Your task to perform on an android device: Open Wikipedia Image 0: 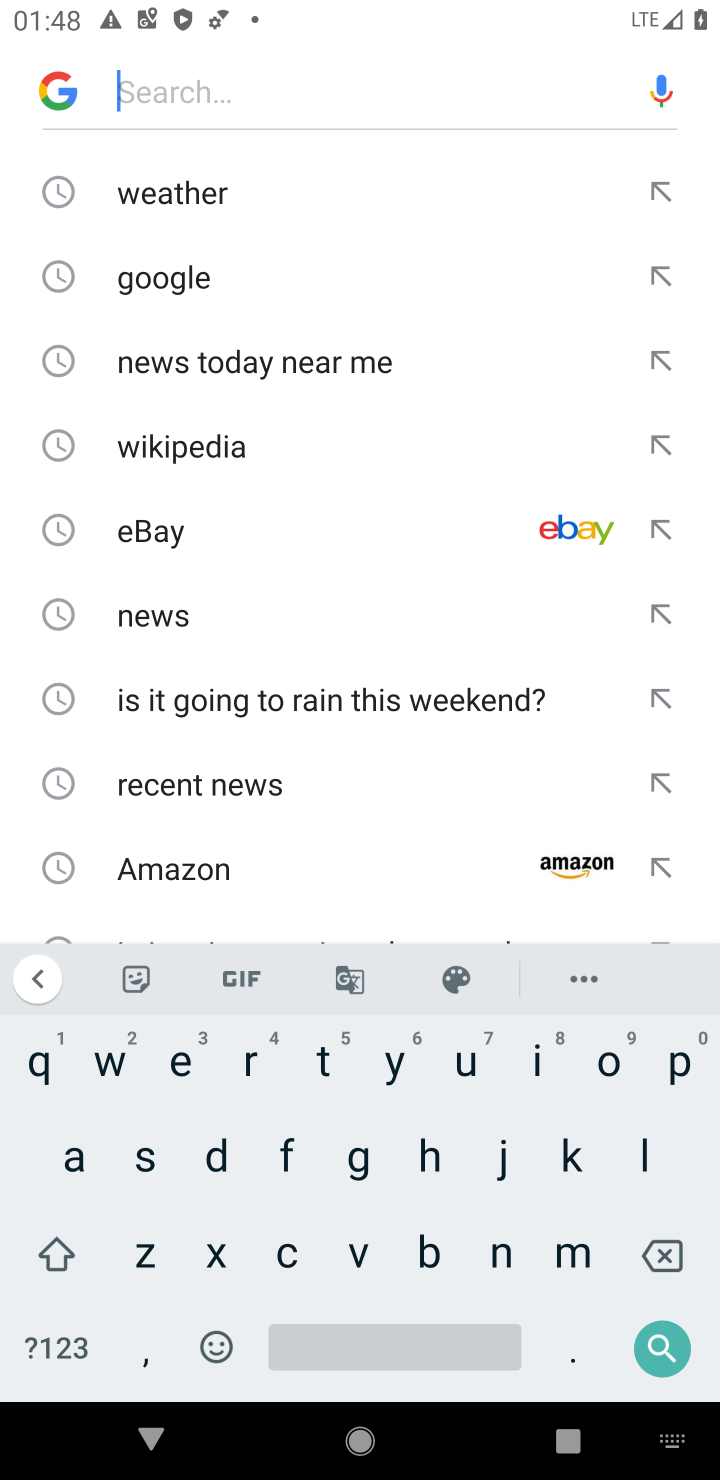
Step 0: click (116, 1054)
Your task to perform on an android device: Open Wikipedia Image 1: 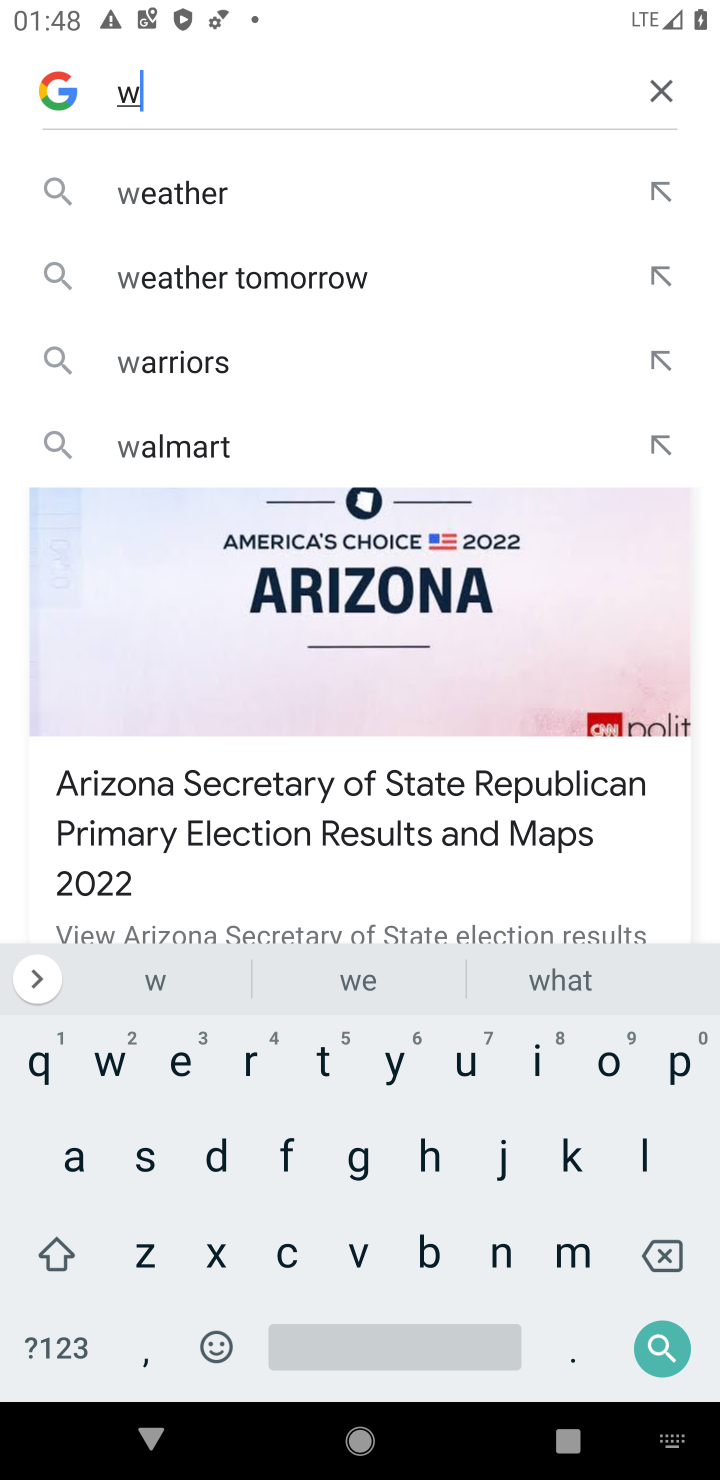
Step 1: click (546, 1079)
Your task to perform on an android device: Open Wikipedia Image 2: 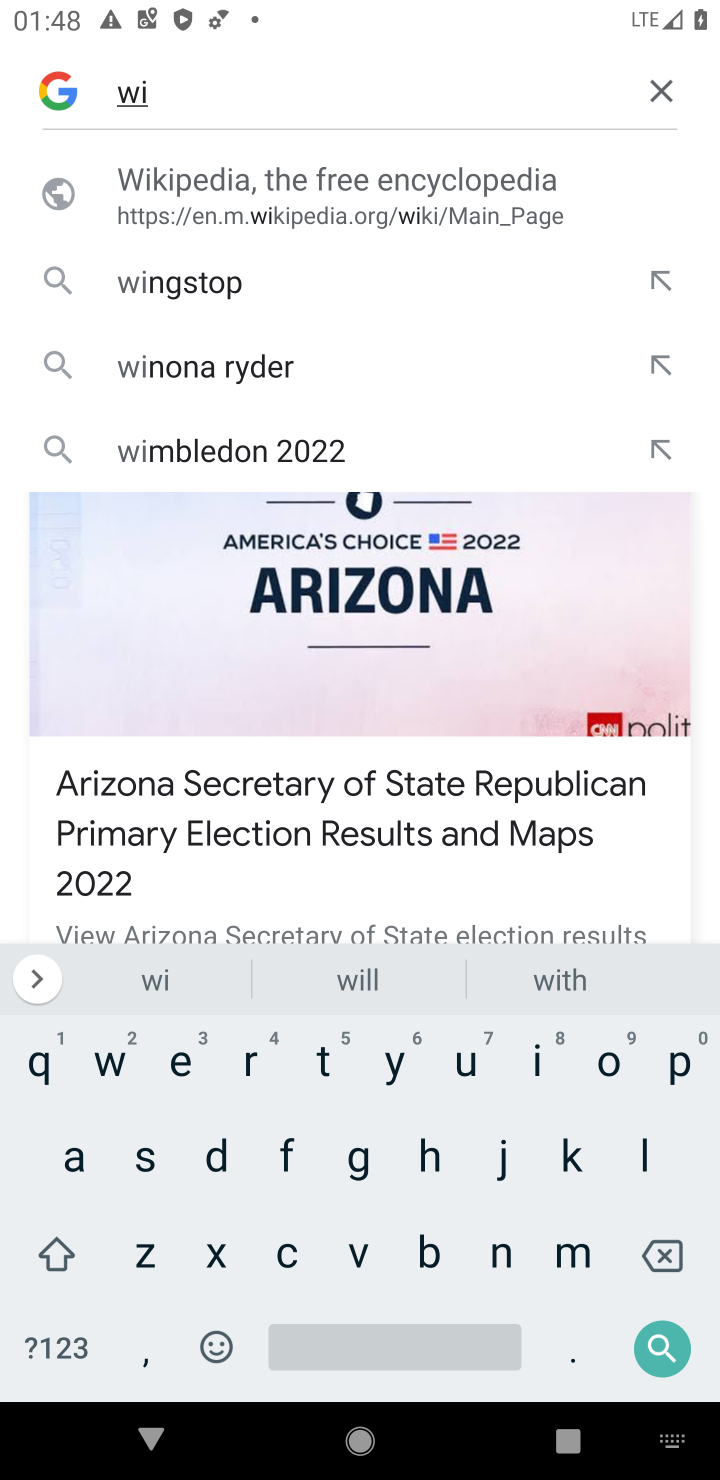
Step 2: click (569, 1136)
Your task to perform on an android device: Open Wikipedia Image 3: 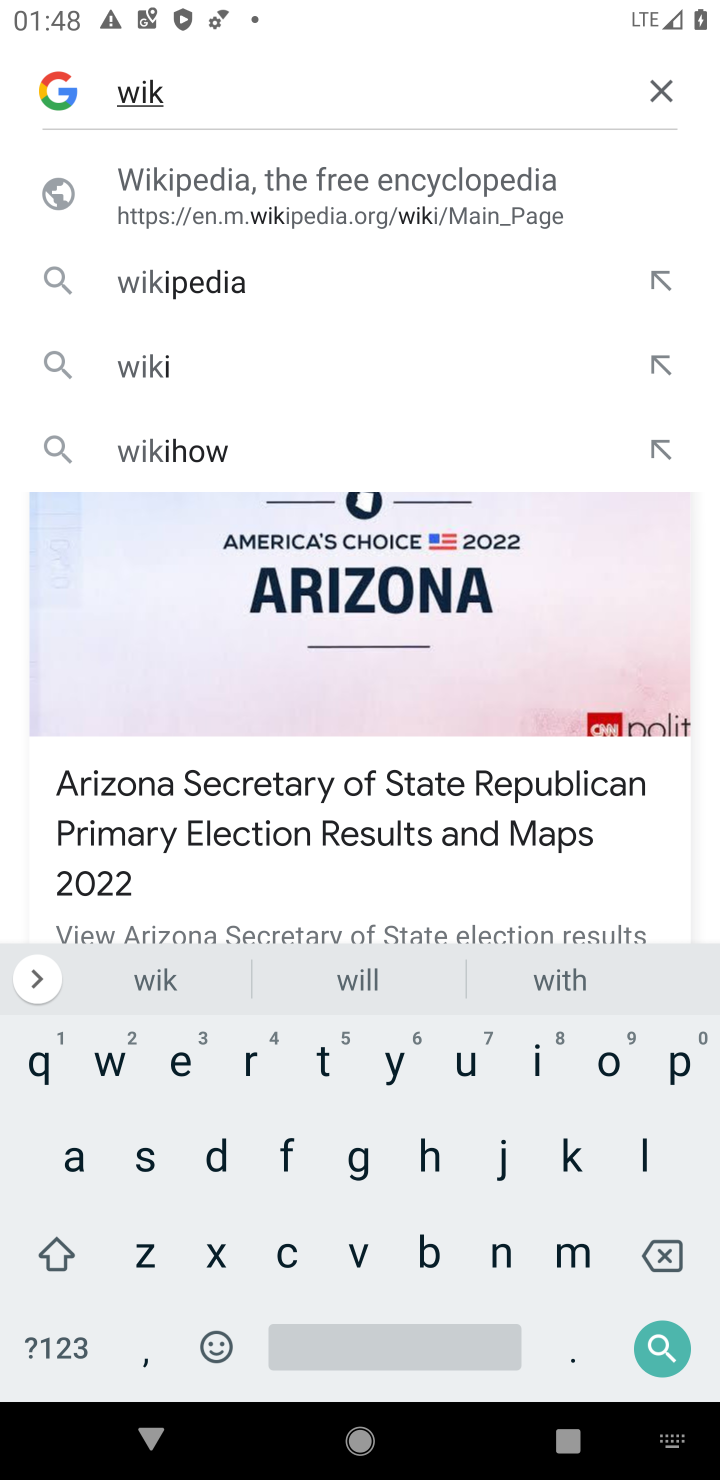
Step 3: click (363, 202)
Your task to perform on an android device: Open Wikipedia Image 4: 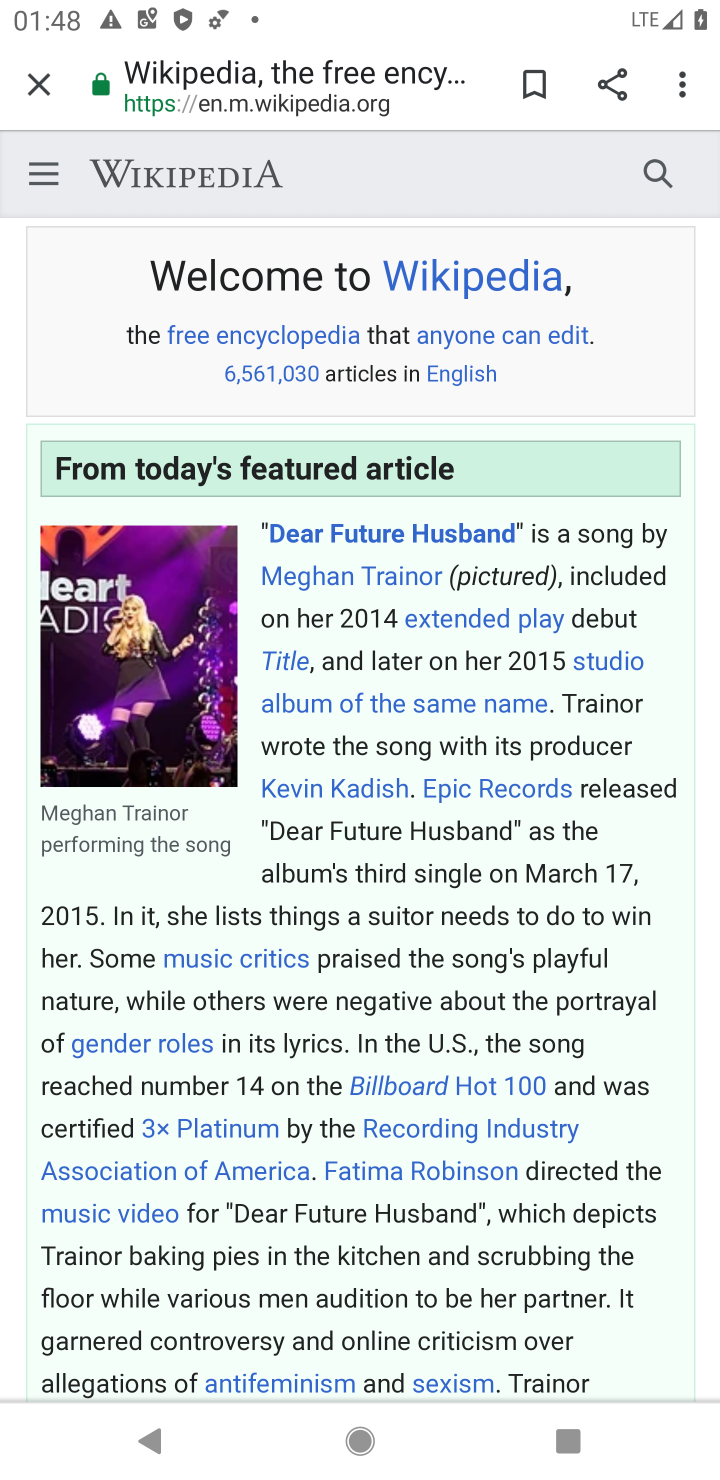
Step 4: task complete